Your task to perform on an android device: Go to Amazon Image 0: 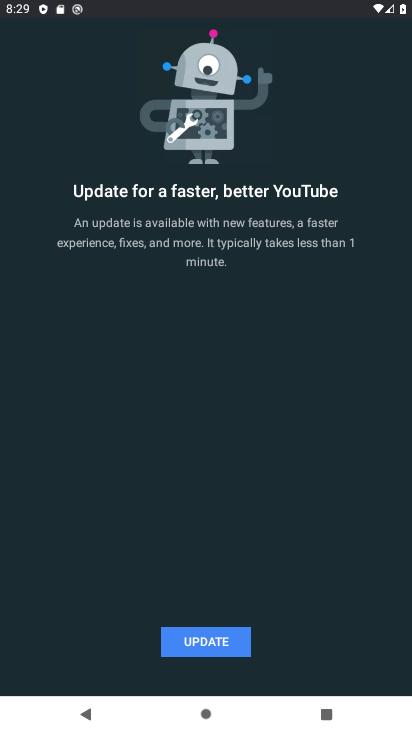
Step 0: press back button
Your task to perform on an android device: Go to Amazon Image 1: 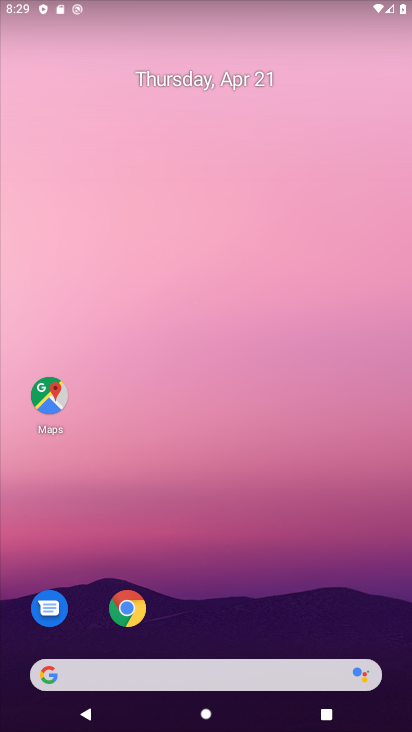
Step 1: click (123, 609)
Your task to perform on an android device: Go to Amazon Image 2: 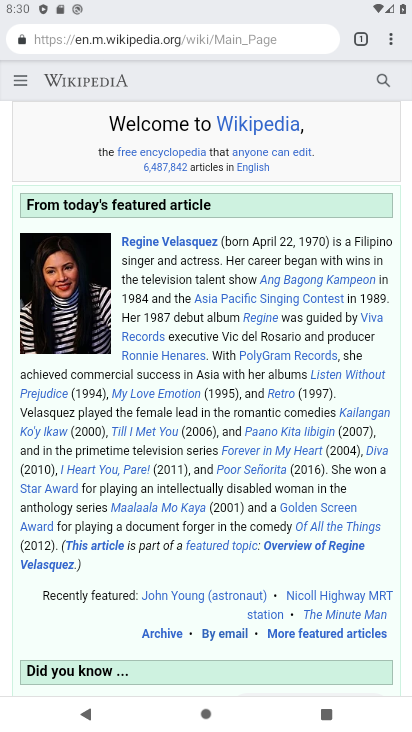
Step 2: click (359, 38)
Your task to perform on an android device: Go to Amazon Image 3: 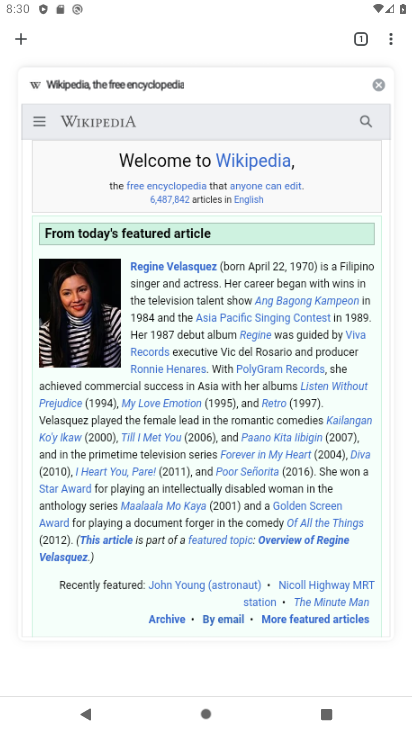
Step 3: click (17, 44)
Your task to perform on an android device: Go to Amazon Image 4: 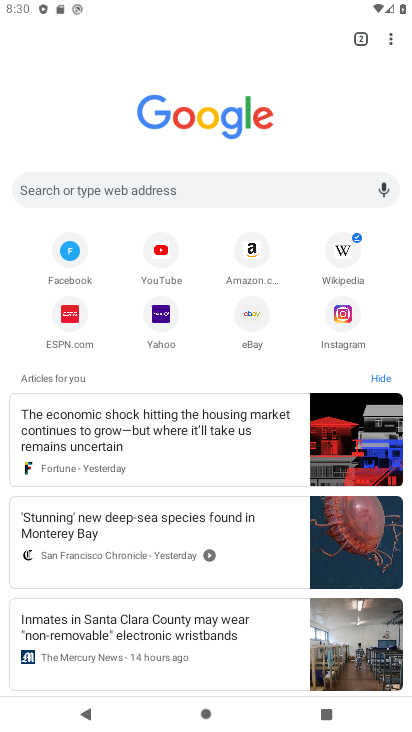
Step 4: click (249, 268)
Your task to perform on an android device: Go to Amazon Image 5: 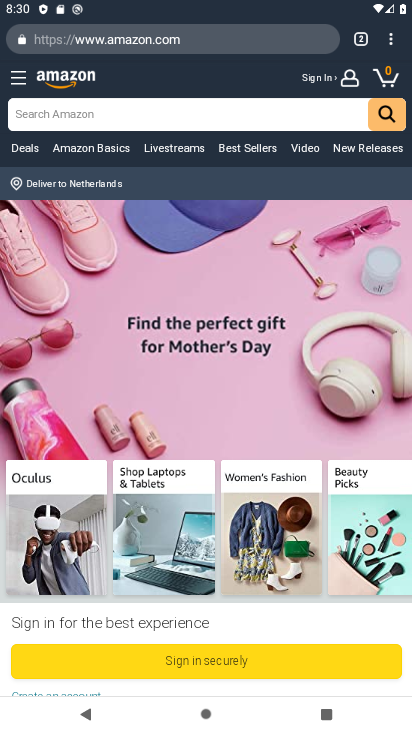
Step 5: task complete